Your task to perform on an android device: turn on data saver in the chrome app Image 0: 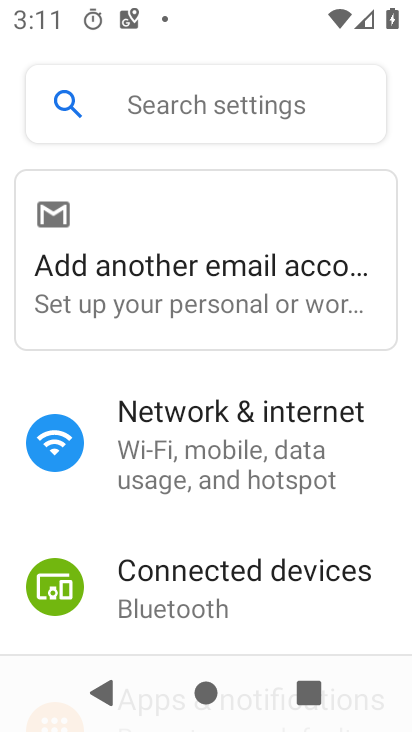
Step 0: press home button
Your task to perform on an android device: turn on data saver in the chrome app Image 1: 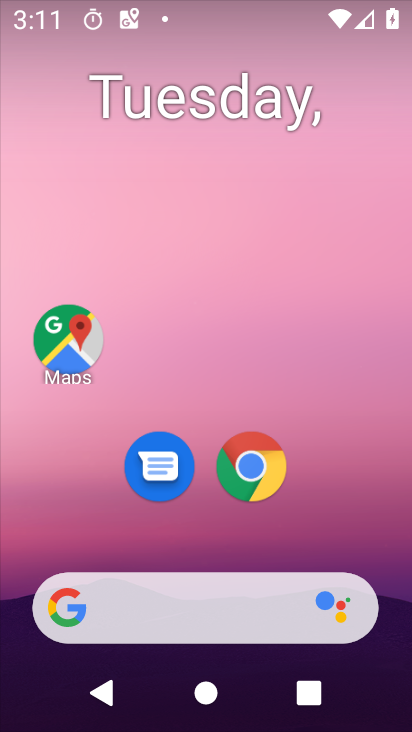
Step 1: drag from (395, 548) to (382, 185)
Your task to perform on an android device: turn on data saver in the chrome app Image 2: 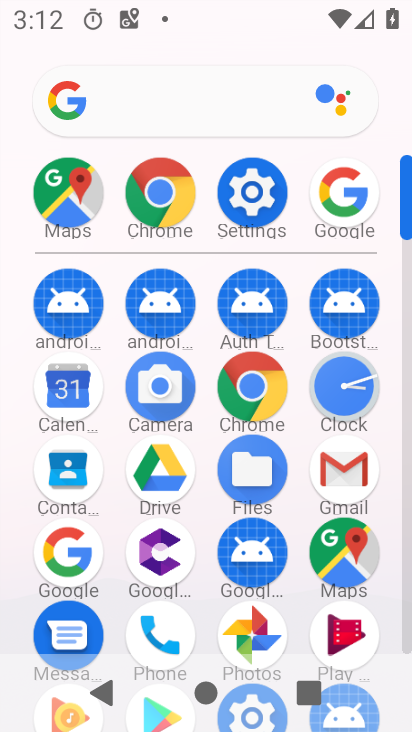
Step 2: click (252, 399)
Your task to perform on an android device: turn on data saver in the chrome app Image 3: 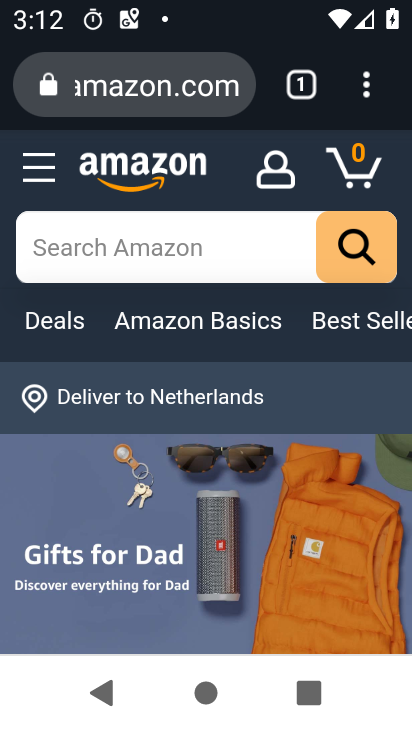
Step 3: click (368, 96)
Your task to perform on an android device: turn on data saver in the chrome app Image 4: 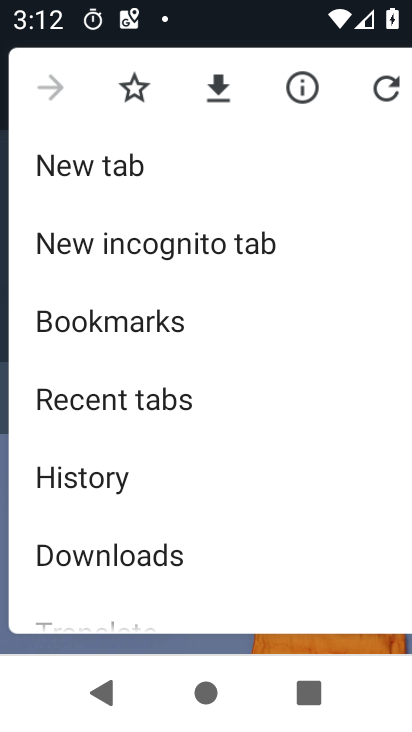
Step 4: drag from (340, 362) to (344, 288)
Your task to perform on an android device: turn on data saver in the chrome app Image 5: 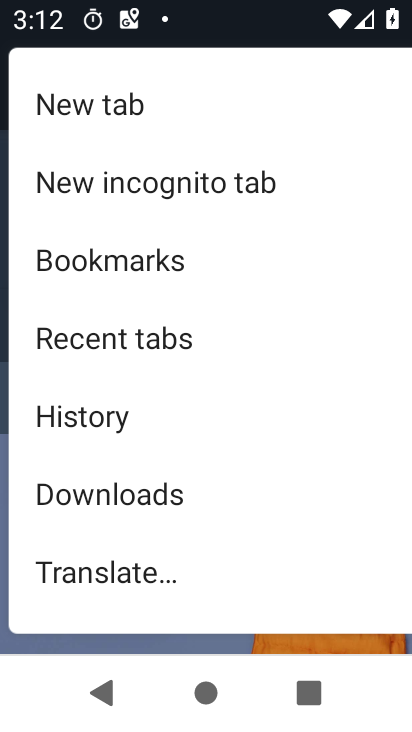
Step 5: drag from (323, 431) to (327, 330)
Your task to perform on an android device: turn on data saver in the chrome app Image 6: 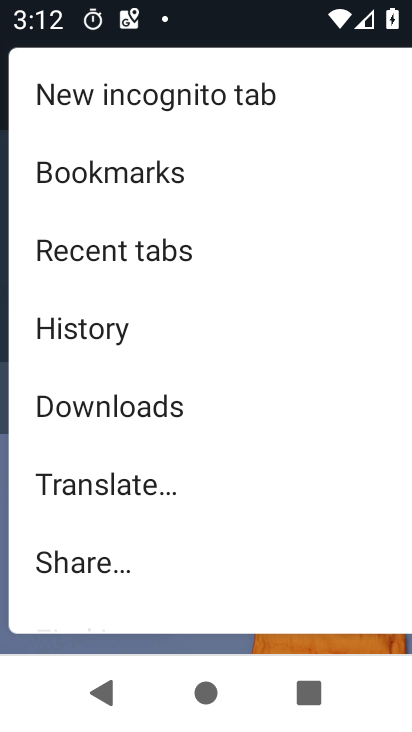
Step 6: drag from (309, 446) to (314, 353)
Your task to perform on an android device: turn on data saver in the chrome app Image 7: 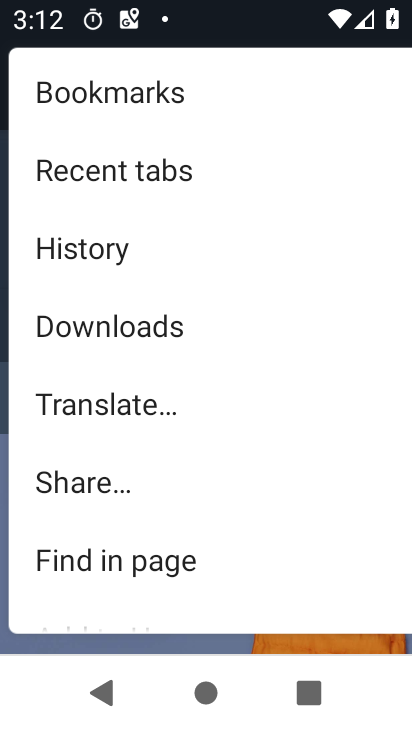
Step 7: drag from (300, 477) to (291, 355)
Your task to perform on an android device: turn on data saver in the chrome app Image 8: 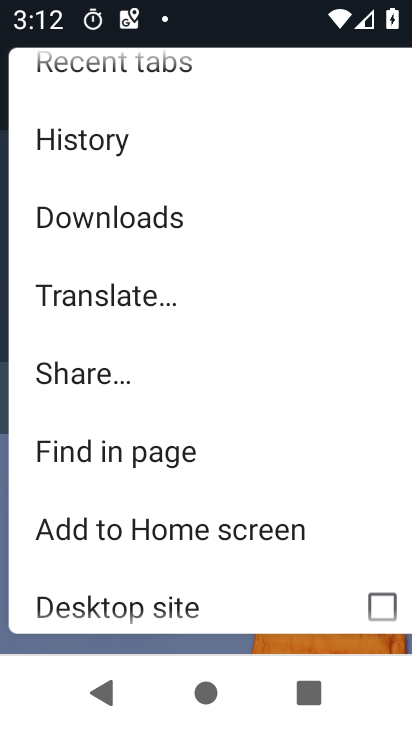
Step 8: drag from (279, 445) to (285, 323)
Your task to perform on an android device: turn on data saver in the chrome app Image 9: 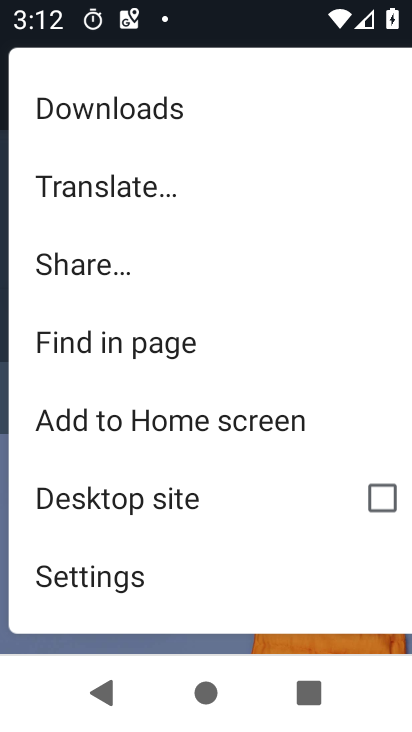
Step 9: drag from (288, 493) to (303, 341)
Your task to perform on an android device: turn on data saver in the chrome app Image 10: 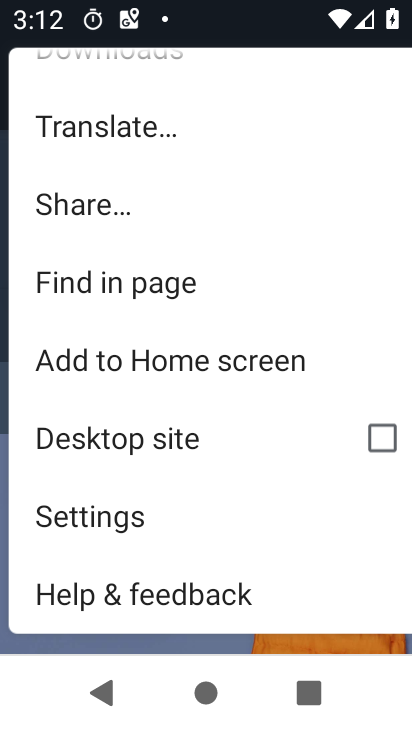
Step 10: click (186, 536)
Your task to perform on an android device: turn on data saver in the chrome app Image 11: 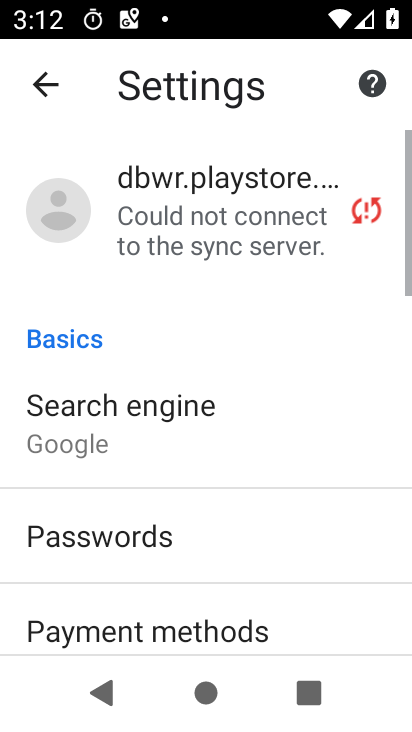
Step 11: drag from (313, 536) to (325, 454)
Your task to perform on an android device: turn on data saver in the chrome app Image 12: 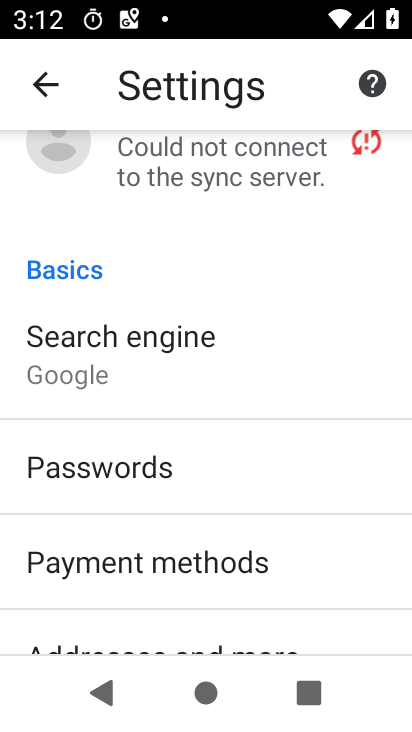
Step 12: drag from (328, 549) to (333, 474)
Your task to perform on an android device: turn on data saver in the chrome app Image 13: 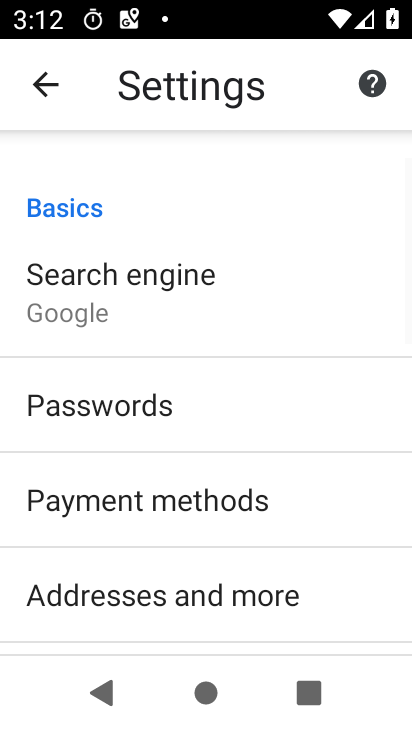
Step 13: drag from (331, 575) to (332, 512)
Your task to perform on an android device: turn on data saver in the chrome app Image 14: 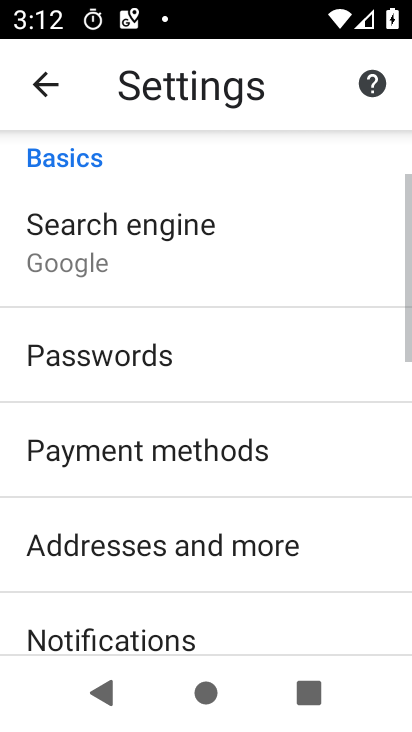
Step 14: drag from (349, 599) to (353, 516)
Your task to perform on an android device: turn on data saver in the chrome app Image 15: 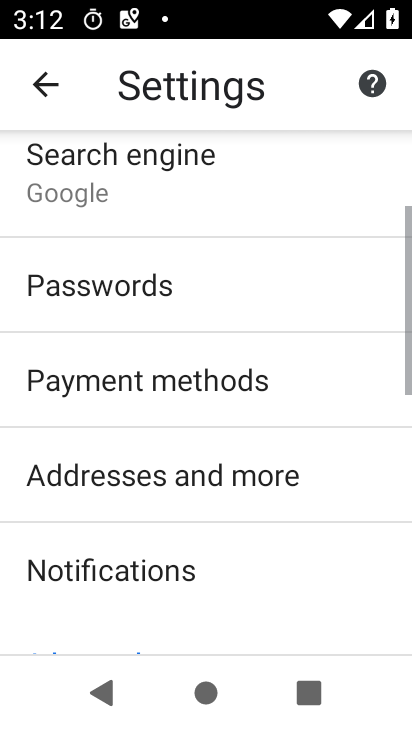
Step 15: drag from (358, 574) to (367, 480)
Your task to perform on an android device: turn on data saver in the chrome app Image 16: 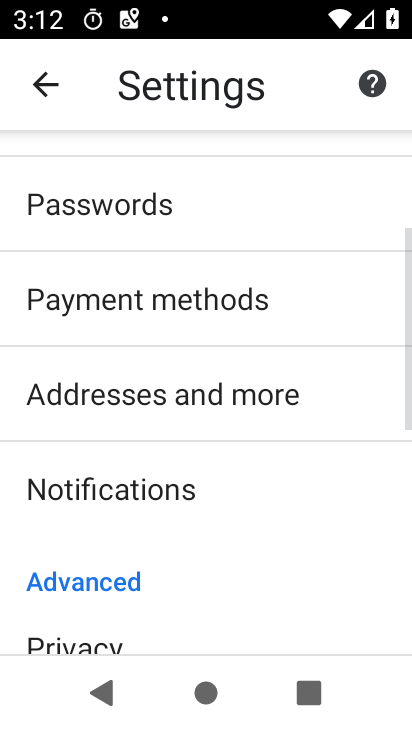
Step 16: drag from (370, 509) to (374, 427)
Your task to perform on an android device: turn on data saver in the chrome app Image 17: 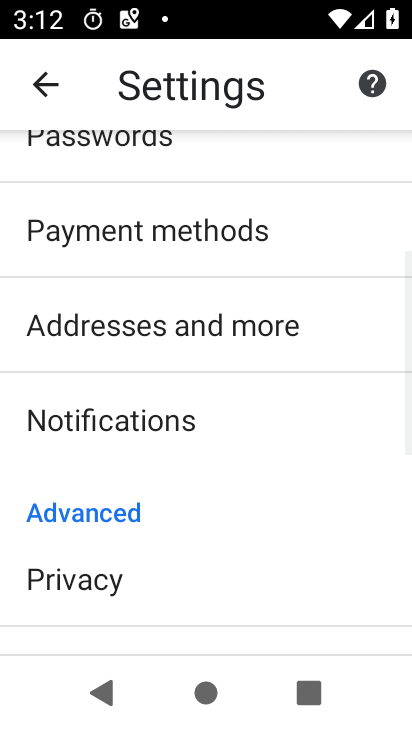
Step 17: drag from (380, 536) to (382, 451)
Your task to perform on an android device: turn on data saver in the chrome app Image 18: 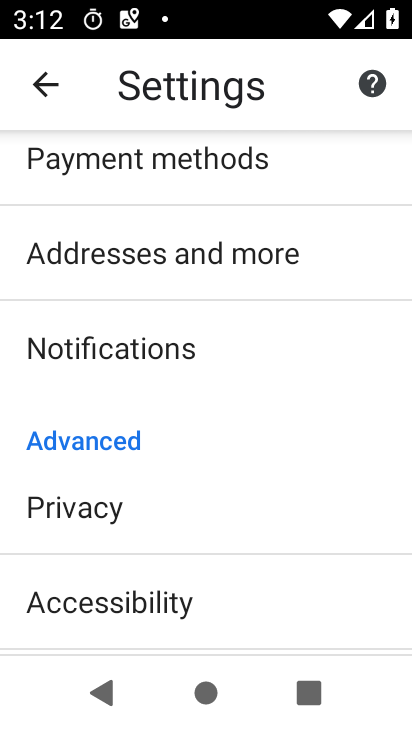
Step 18: drag from (237, 479) to (252, 412)
Your task to perform on an android device: turn on data saver in the chrome app Image 19: 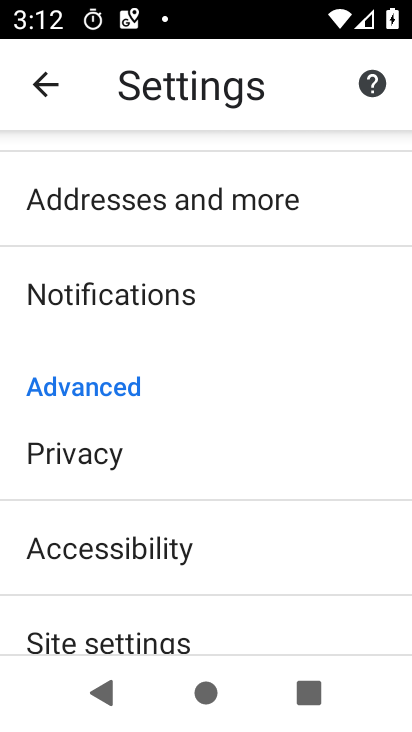
Step 19: drag from (289, 498) to (291, 346)
Your task to perform on an android device: turn on data saver in the chrome app Image 20: 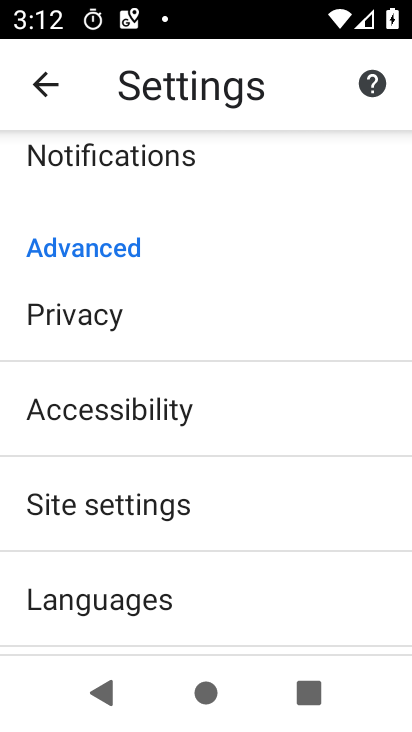
Step 20: drag from (306, 529) to (313, 412)
Your task to perform on an android device: turn on data saver in the chrome app Image 21: 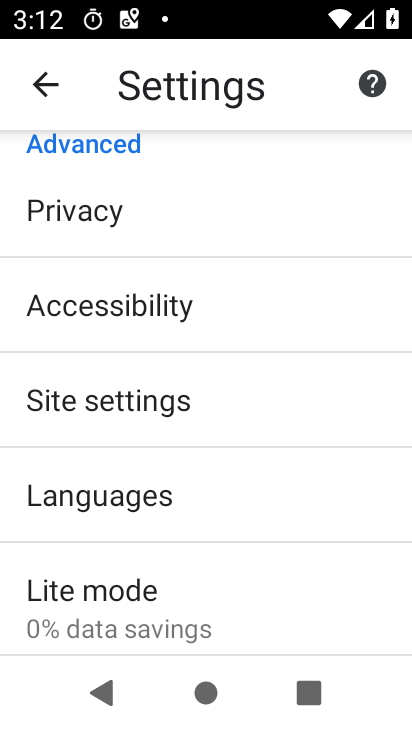
Step 21: drag from (299, 520) to (304, 421)
Your task to perform on an android device: turn on data saver in the chrome app Image 22: 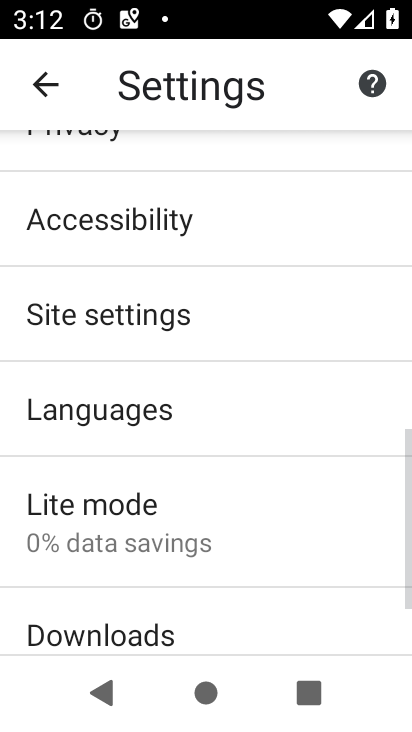
Step 22: click (289, 519)
Your task to perform on an android device: turn on data saver in the chrome app Image 23: 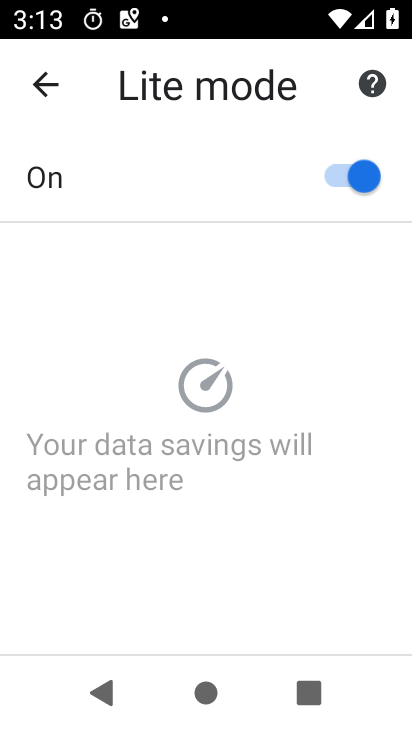
Step 23: task complete